Your task to perform on an android device: Search for Mexican restaurants on Maps Image 0: 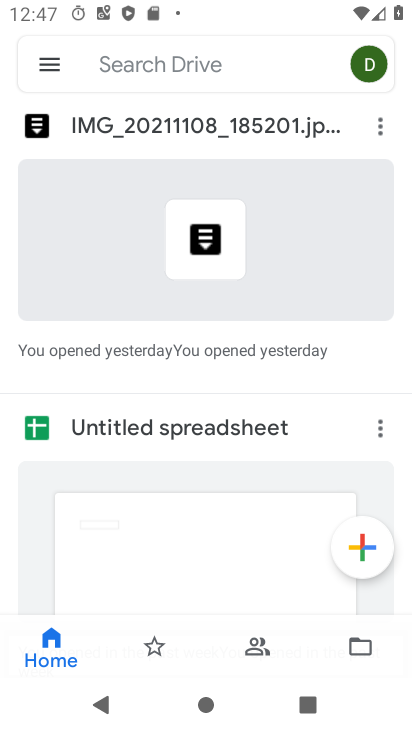
Step 0: press home button
Your task to perform on an android device: Search for Mexican restaurants on Maps Image 1: 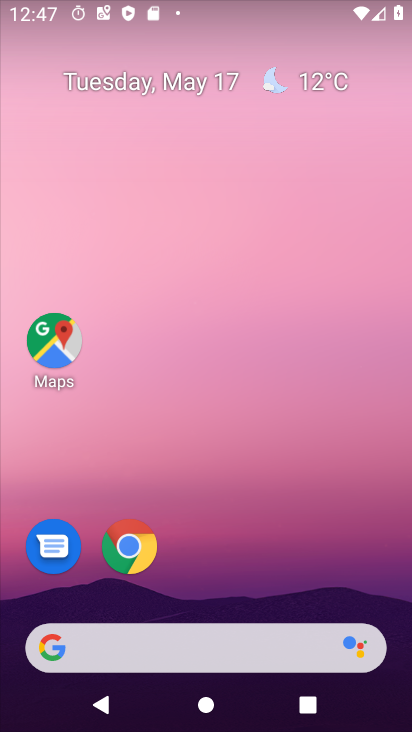
Step 1: click (53, 350)
Your task to perform on an android device: Search for Mexican restaurants on Maps Image 2: 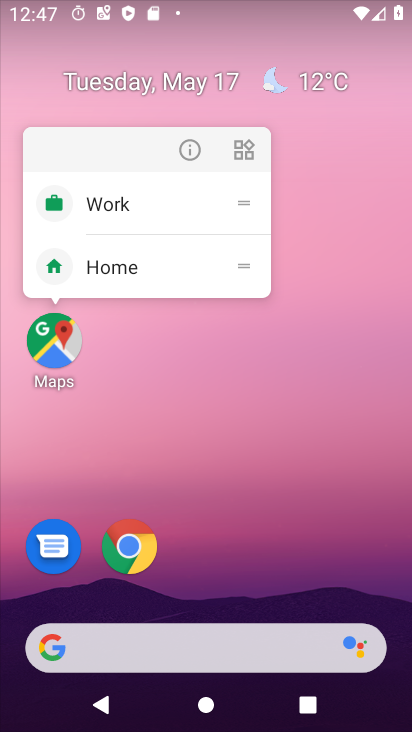
Step 2: click (52, 358)
Your task to perform on an android device: Search for Mexican restaurants on Maps Image 3: 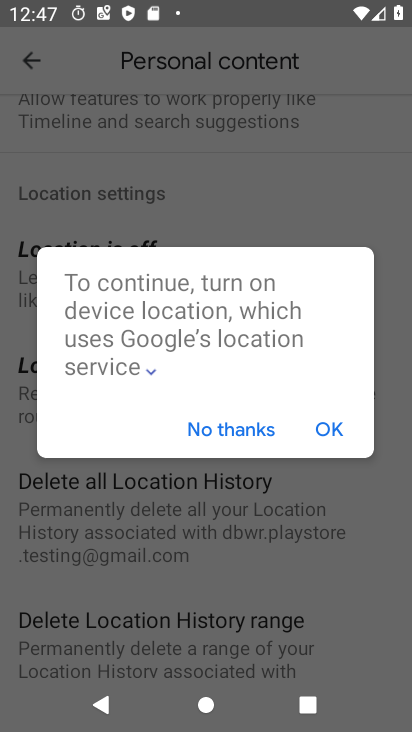
Step 3: click (318, 443)
Your task to perform on an android device: Search for Mexican restaurants on Maps Image 4: 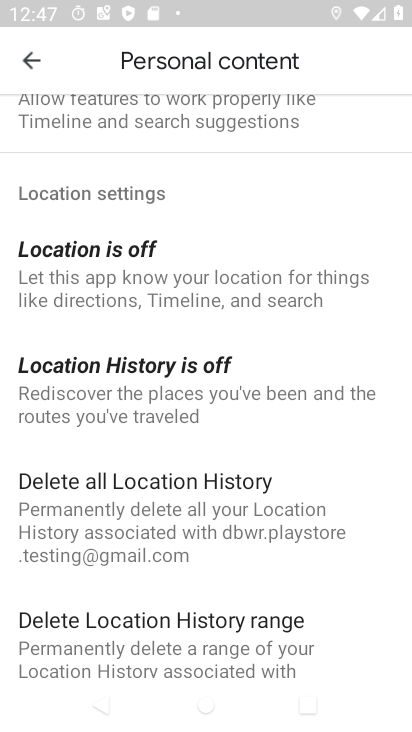
Step 4: click (20, 62)
Your task to perform on an android device: Search for Mexican restaurants on Maps Image 5: 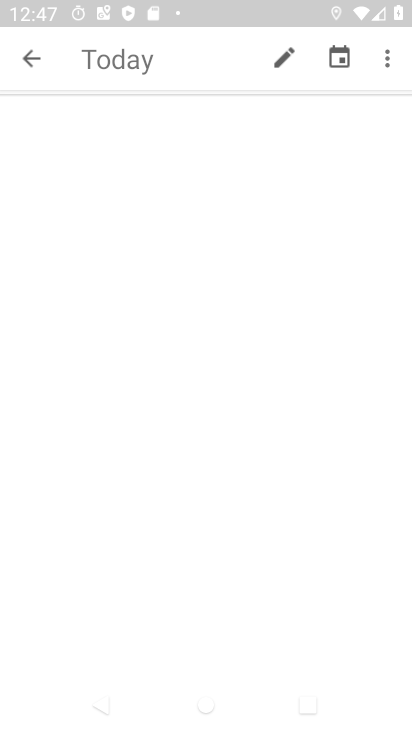
Step 5: click (29, 62)
Your task to perform on an android device: Search for Mexican restaurants on Maps Image 6: 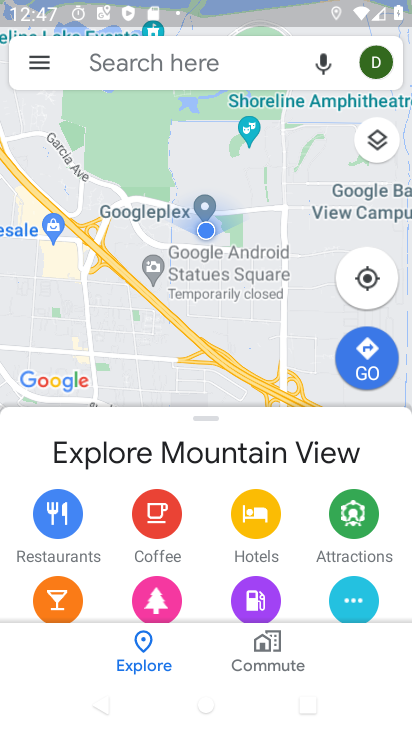
Step 6: click (175, 58)
Your task to perform on an android device: Search for Mexican restaurants on Maps Image 7: 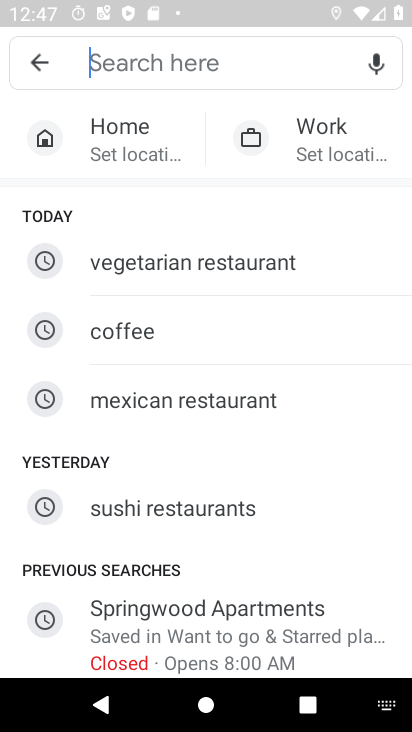
Step 7: click (223, 394)
Your task to perform on an android device: Search for Mexican restaurants on Maps Image 8: 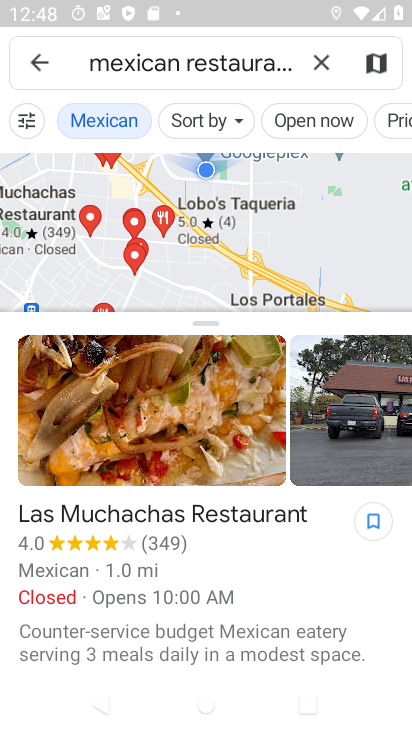
Step 8: task complete